Your task to perform on an android device: turn on showing notifications on the lock screen Image 0: 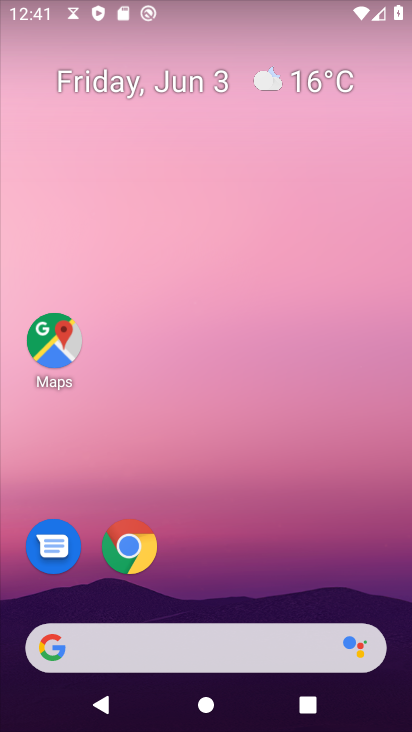
Step 0: drag from (185, 607) to (276, 81)
Your task to perform on an android device: turn on showing notifications on the lock screen Image 1: 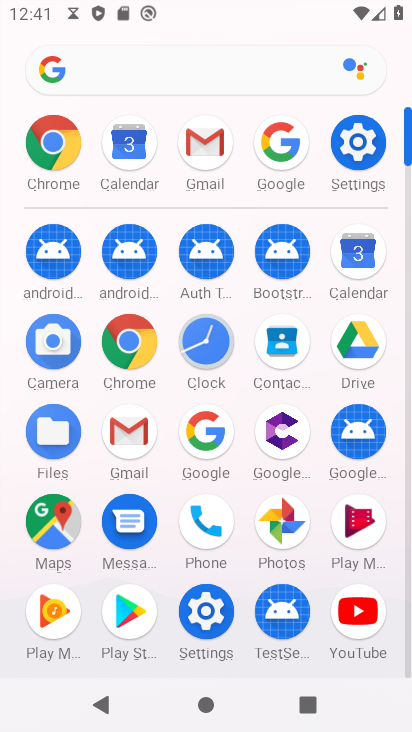
Step 1: click (367, 131)
Your task to perform on an android device: turn on showing notifications on the lock screen Image 2: 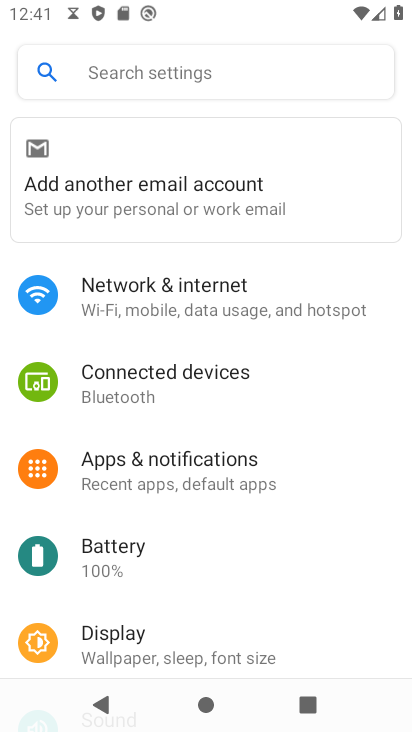
Step 2: click (168, 474)
Your task to perform on an android device: turn on showing notifications on the lock screen Image 3: 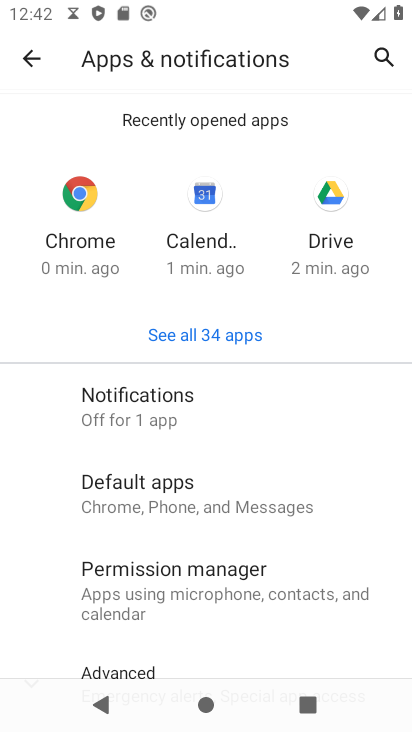
Step 3: click (128, 410)
Your task to perform on an android device: turn on showing notifications on the lock screen Image 4: 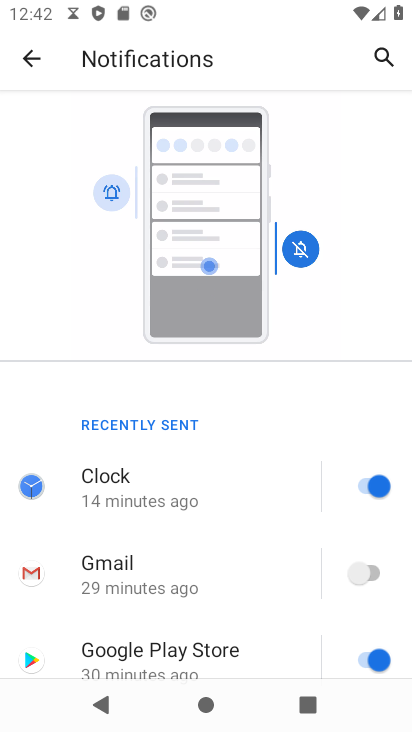
Step 4: drag from (129, 560) to (258, 100)
Your task to perform on an android device: turn on showing notifications on the lock screen Image 5: 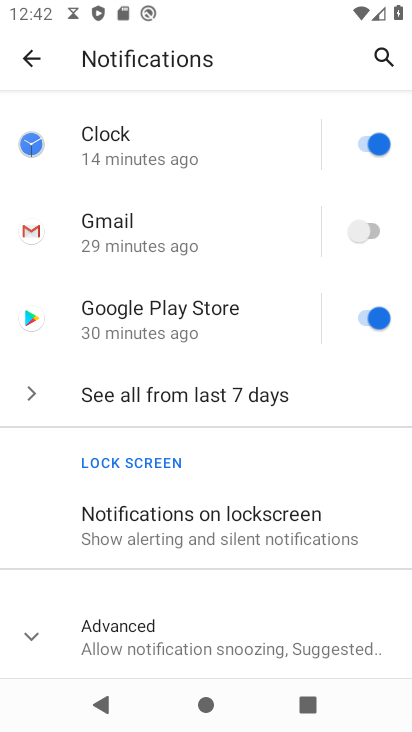
Step 5: click (188, 529)
Your task to perform on an android device: turn on showing notifications on the lock screen Image 6: 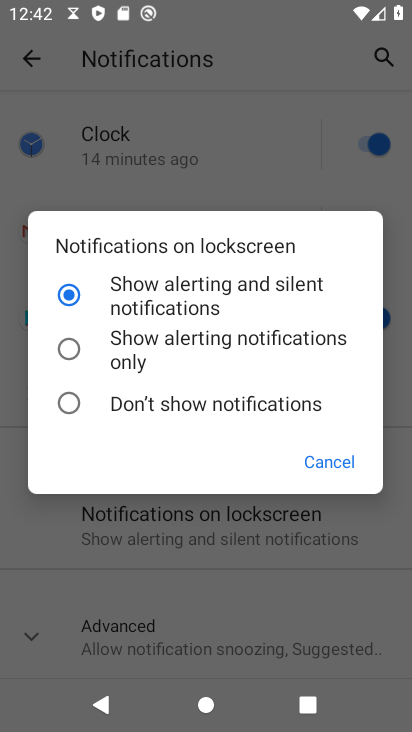
Step 6: task complete